Your task to perform on an android device: Turn off the flashlight Image 0: 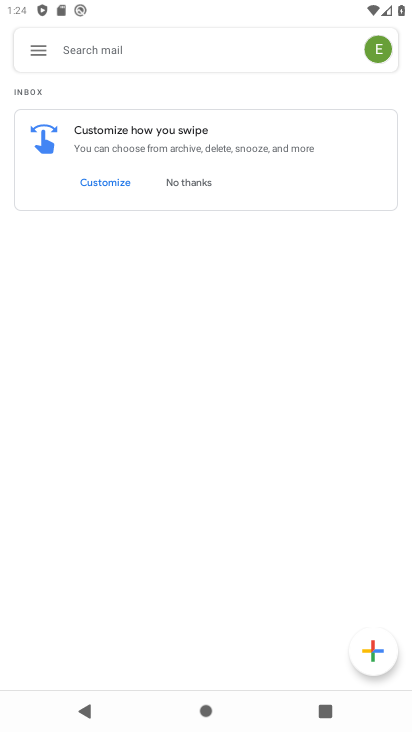
Step 0: press home button
Your task to perform on an android device: Turn off the flashlight Image 1: 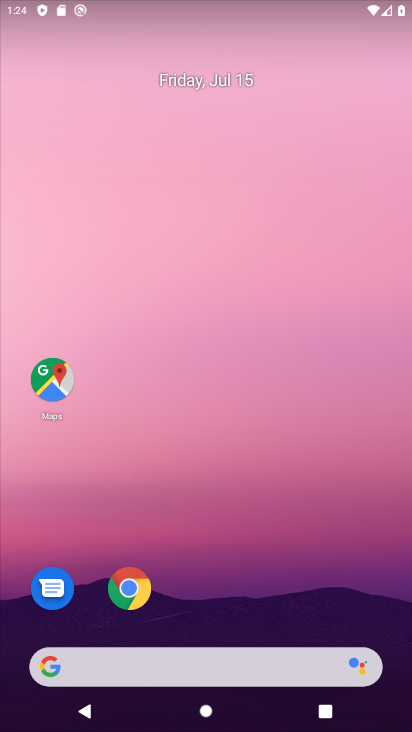
Step 1: drag from (175, 667) to (243, 116)
Your task to perform on an android device: Turn off the flashlight Image 2: 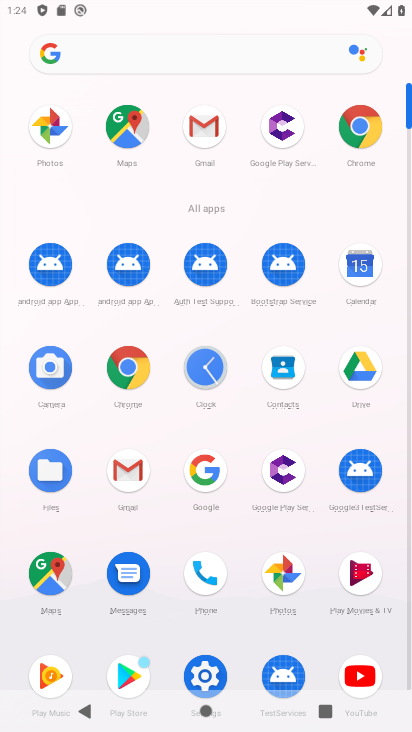
Step 2: click (203, 675)
Your task to perform on an android device: Turn off the flashlight Image 3: 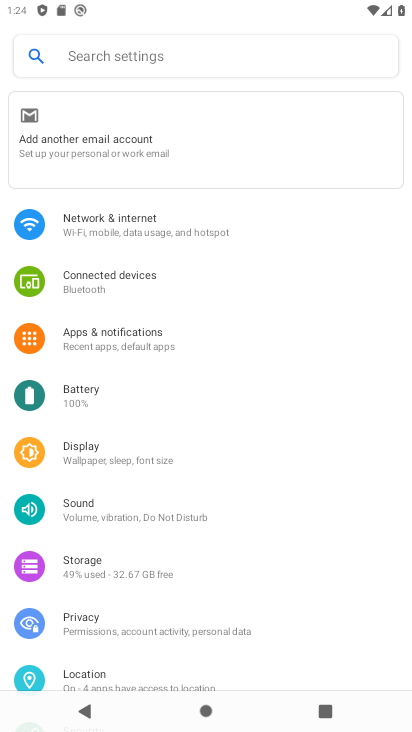
Step 3: click (116, 456)
Your task to perform on an android device: Turn off the flashlight Image 4: 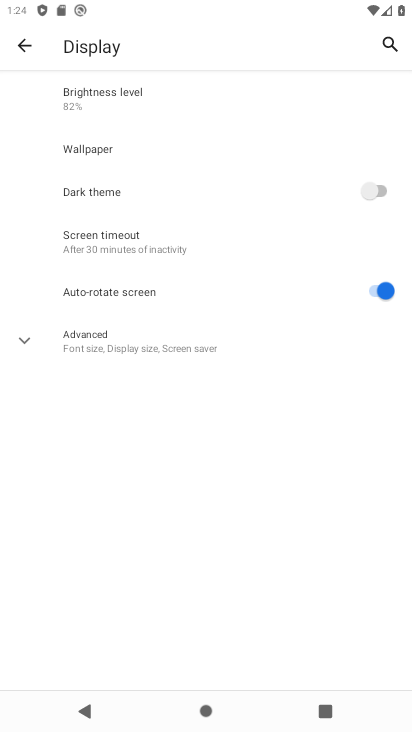
Step 4: click (132, 349)
Your task to perform on an android device: Turn off the flashlight Image 5: 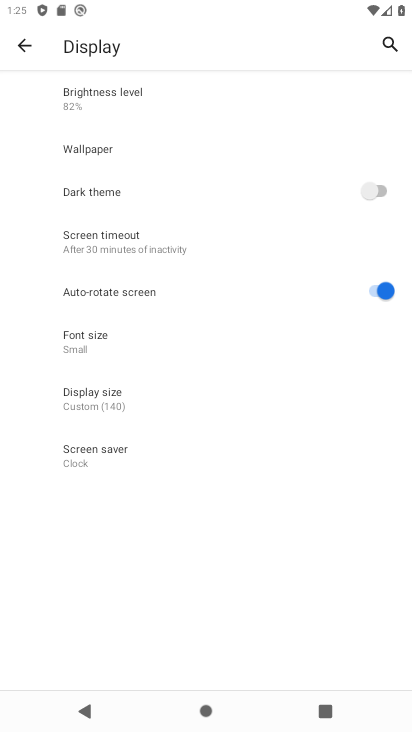
Step 5: click (24, 48)
Your task to perform on an android device: Turn off the flashlight Image 6: 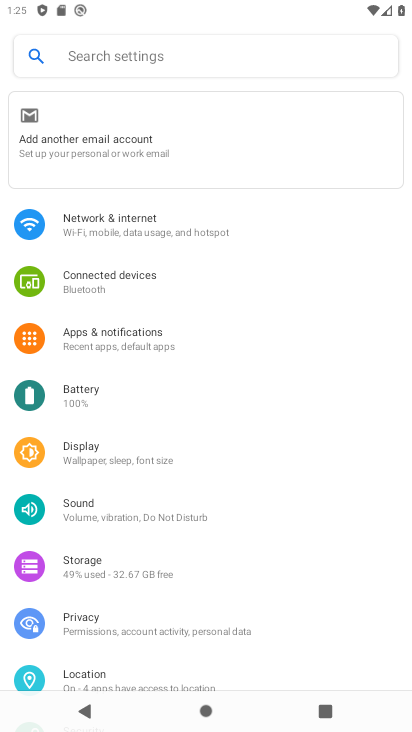
Step 6: click (82, 511)
Your task to perform on an android device: Turn off the flashlight Image 7: 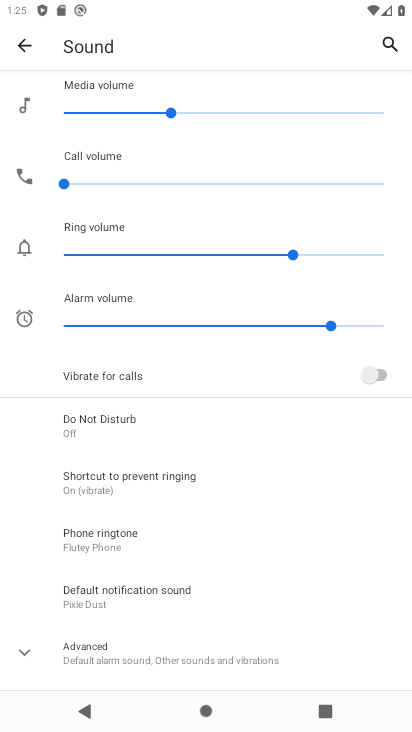
Step 7: click (90, 652)
Your task to perform on an android device: Turn off the flashlight Image 8: 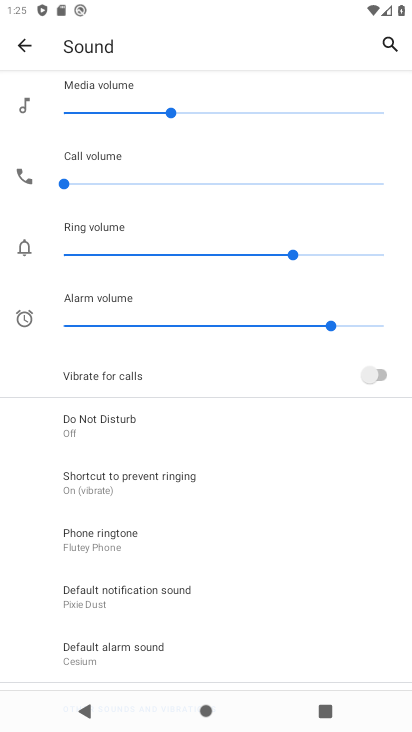
Step 8: press back button
Your task to perform on an android device: Turn off the flashlight Image 9: 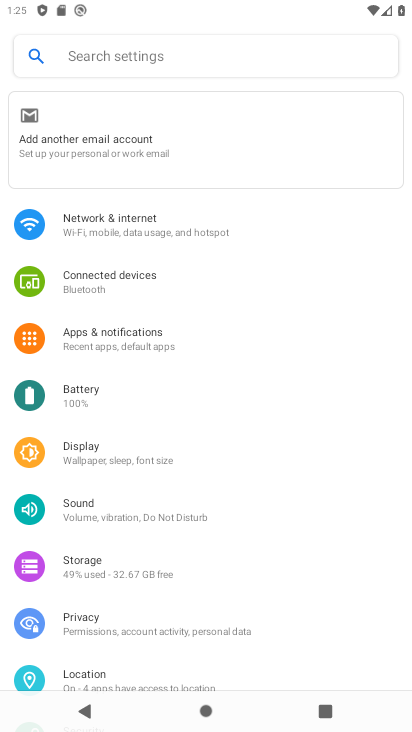
Step 9: drag from (105, 638) to (197, 469)
Your task to perform on an android device: Turn off the flashlight Image 10: 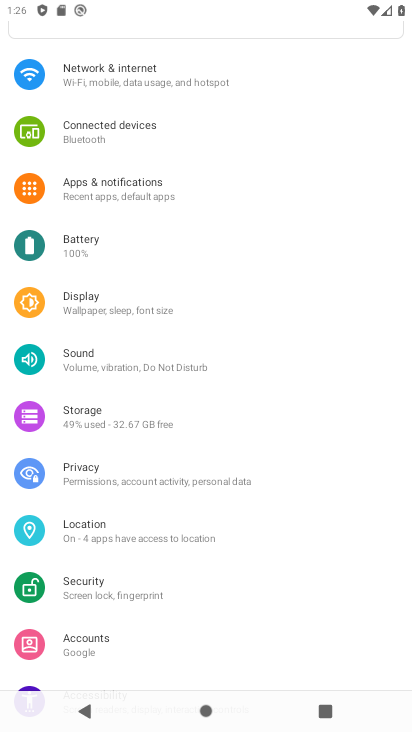
Step 10: click (132, 370)
Your task to perform on an android device: Turn off the flashlight Image 11: 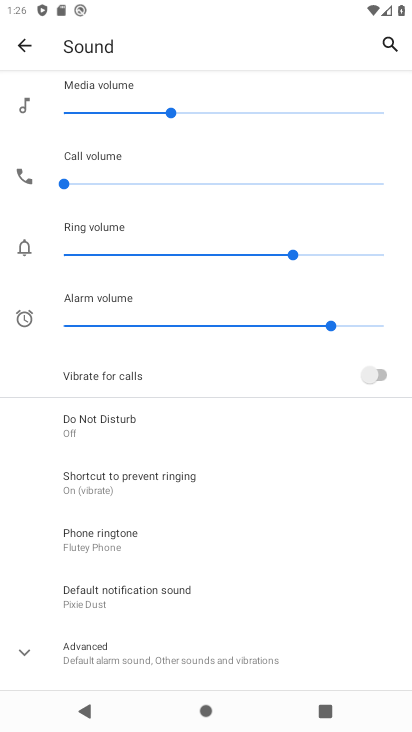
Step 11: drag from (113, 548) to (142, 402)
Your task to perform on an android device: Turn off the flashlight Image 12: 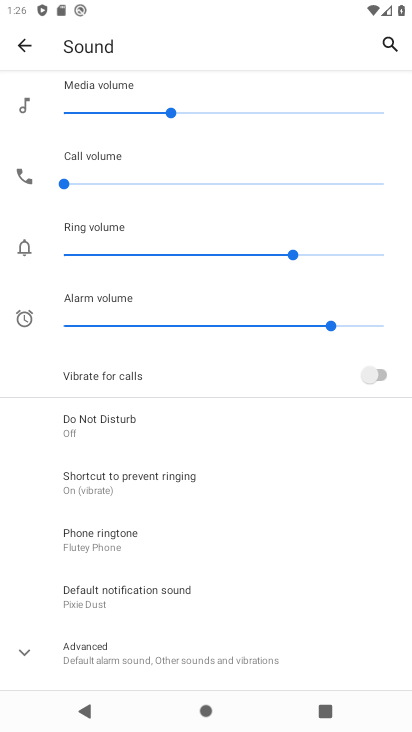
Step 12: click (119, 550)
Your task to perform on an android device: Turn off the flashlight Image 13: 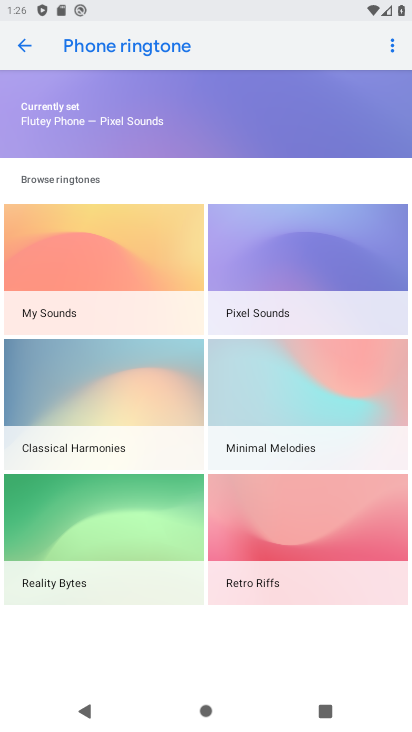
Step 13: task complete